Your task to perform on an android device: turn off javascript in the chrome app Image 0: 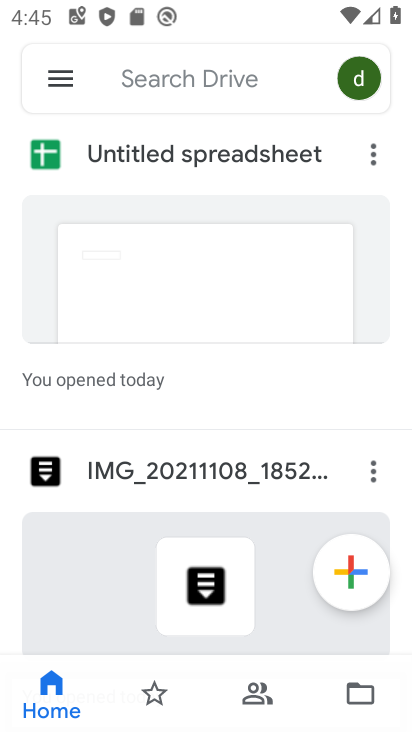
Step 0: press home button
Your task to perform on an android device: turn off javascript in the chrome app Image 1: 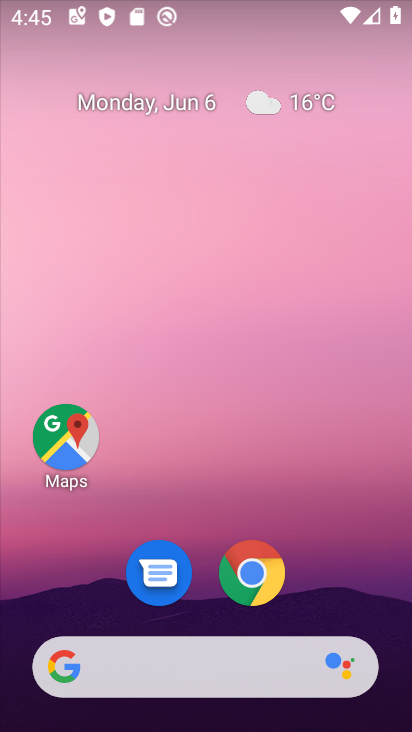
Step 1: click (253, 572)
Your task to perform on an android device: turn off javascript in the chrome app Image 2: 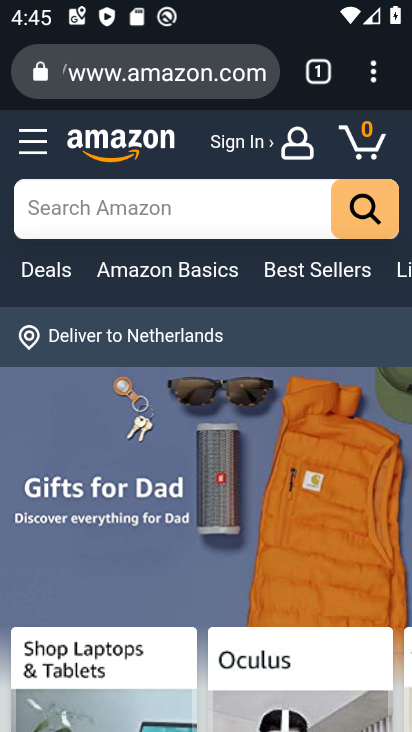
Step 2: click (374, 78)
Your task to perform on an android device: turn off javascript in the chrome app Image 3: 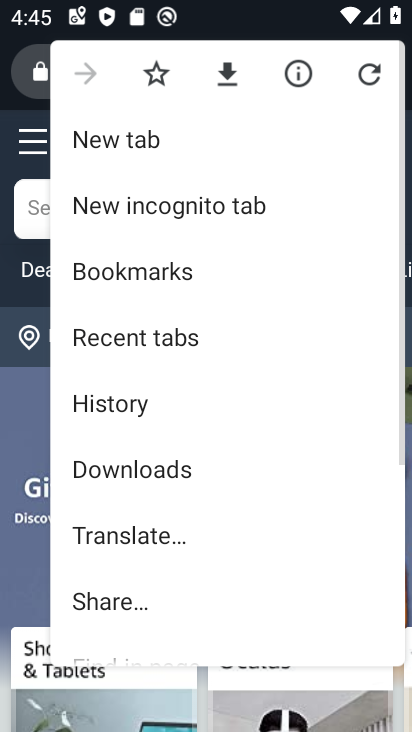
Step 3: drag from (176, 571) to (283, 281)
Your task to perform on an android device: turn off javascript in the chrome app Image 4: 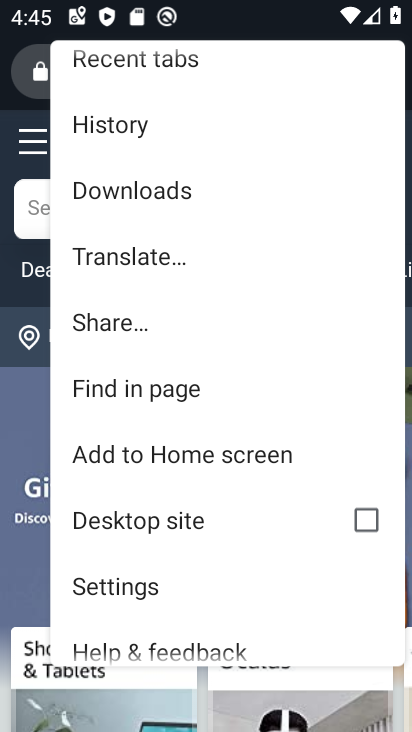
Step 4: click (154, 582)
Your task to perform on an android device: turn off javascript in the chrome app Image 5: 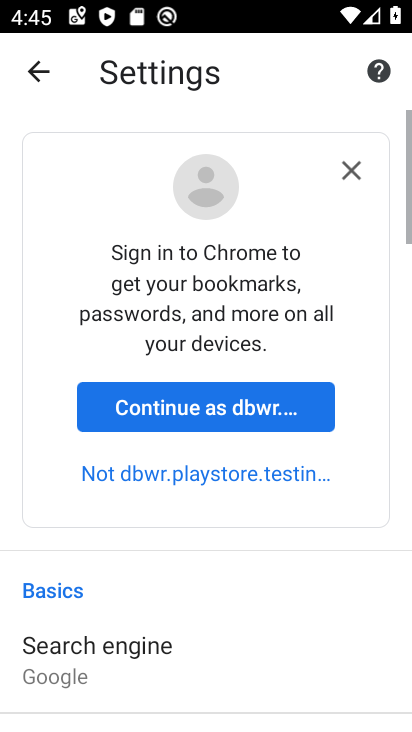
Step 5: drag from (216, 655) to (389, 224)
Your task to perform on an android device: turn off javascript in the chrome app Image 6: 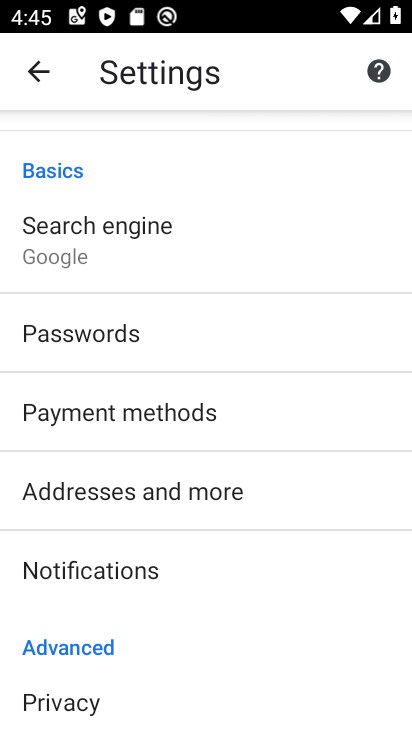
Step 6: drag from (196, 595) to (307, 308)
Your task to perform on an android device: turn off javascript in the chrome app Image 7: 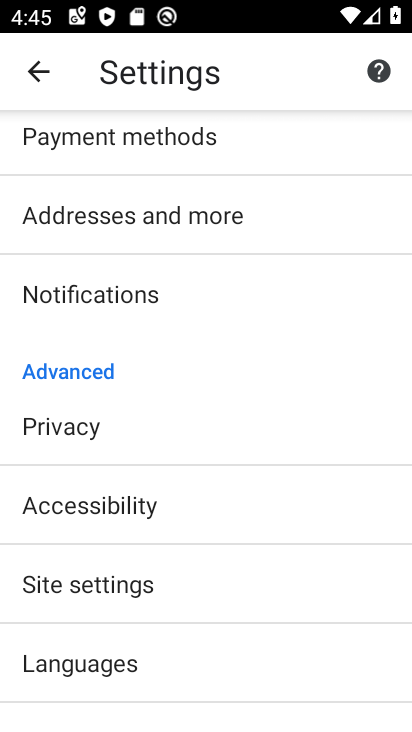
Step 7: click (146, 586)
Your task to perform on an android device: turn off javascript in the chrome app Image 8: 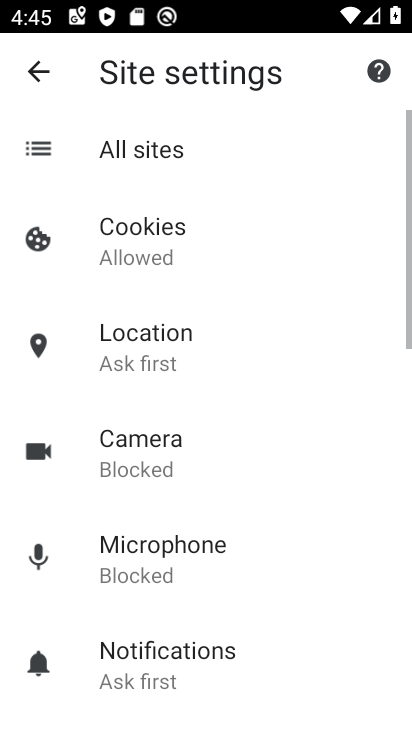
Step 8: drag from (221, 617) to (347, 256)
Your task to perform on an android device: turn off javascript in the chrome app Image 9: 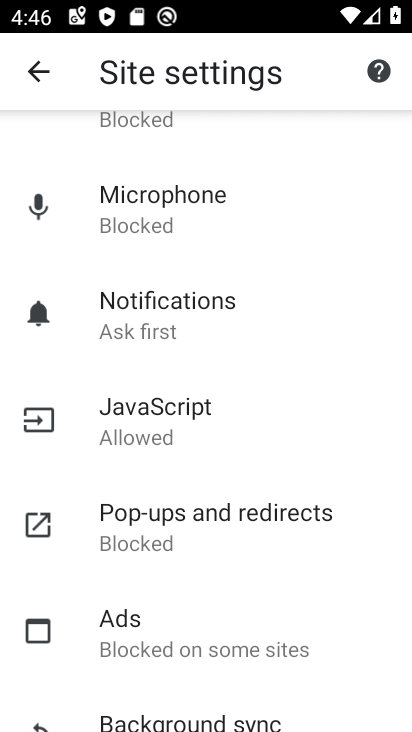
Step 9: click (209, 407)
Your task to perform on an android device: turn off javascript in the chrome app Image 10: 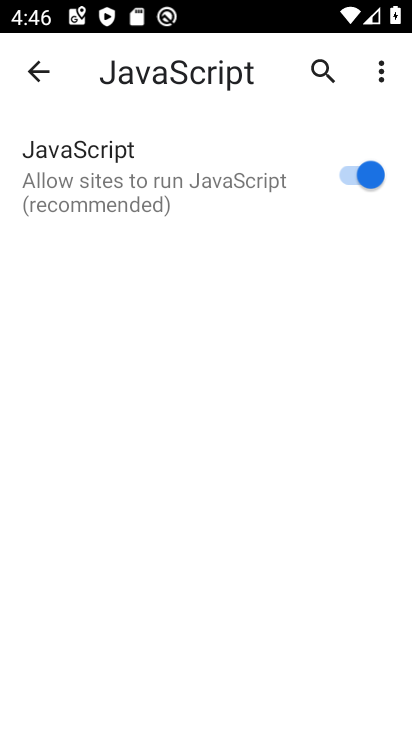
Step 10: click (360, 177)
Your task to perform on an android device: turn off javascript in the chrome app Image 11: 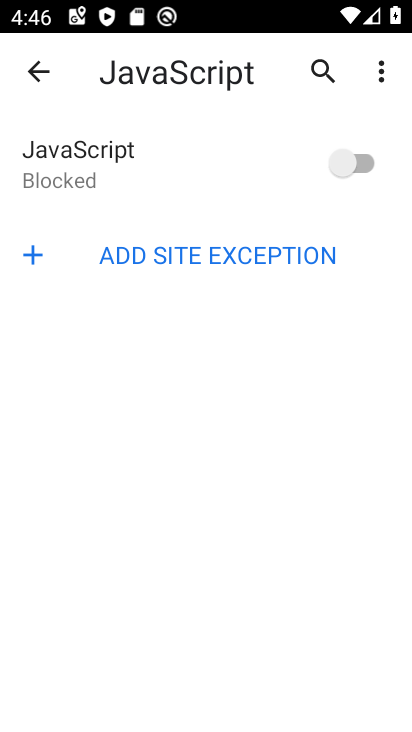
Step 11: task complete